Your task to perform on an android device: Go to Wikipedia Image 0: 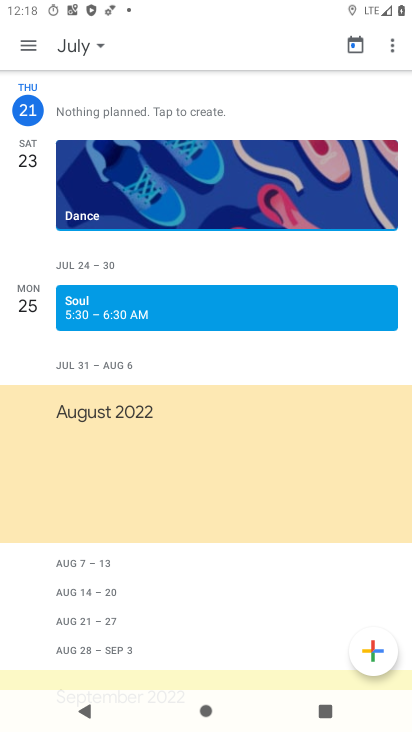
Step 0: press home button
Your task to perform on an android device: Go to Wikipedia Image 1: 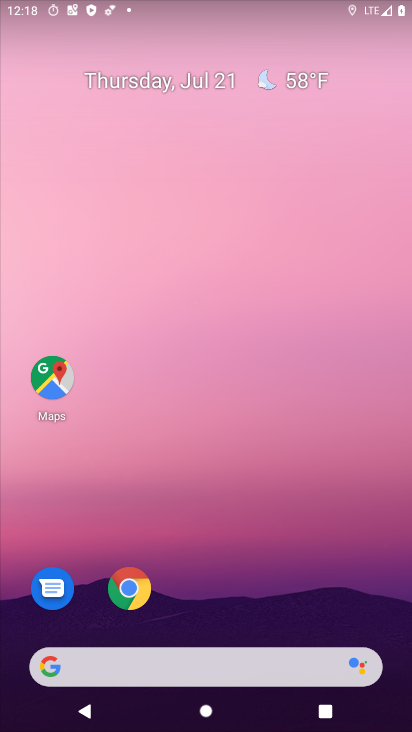
Step 1: click (134, 581)
Your task to perform on an android device: Go to Wikipedia Image 2: 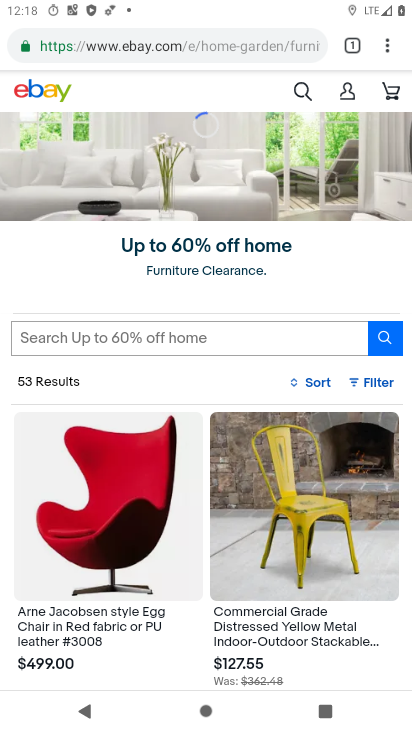
Step 2: click (144, 44)
Your task to perform on an android device: Go to Wikipedia Image 3: 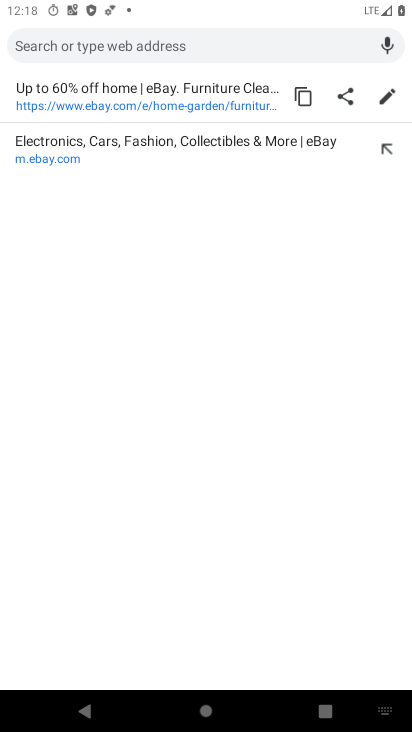
Step 3: type "wikipedia"
Your task to perform on an android device: Go to Wikipedia Image 4: 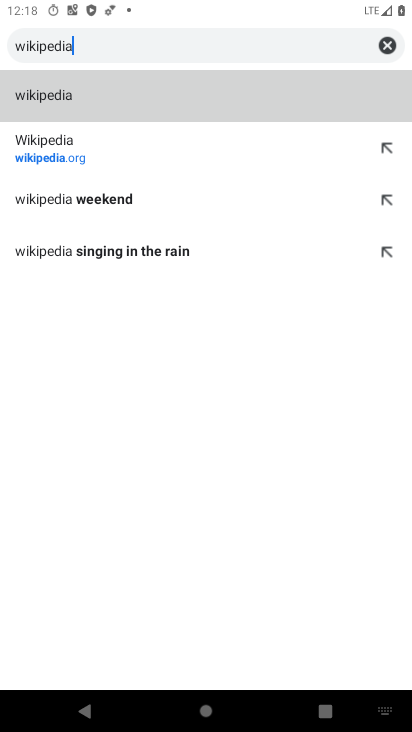
Step 4: click (73, 90)
Your task to perform on an android device: Go to Wikipedia Image 5: 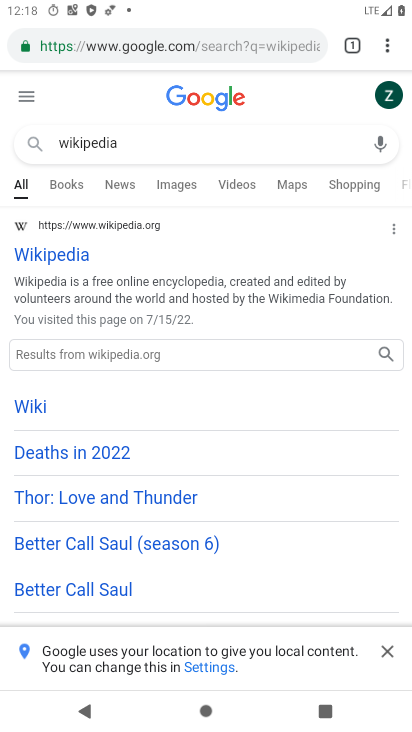
Step 5: click (40, 255)
Your task to perform on an android device: Go to Wikipedia Image 6: 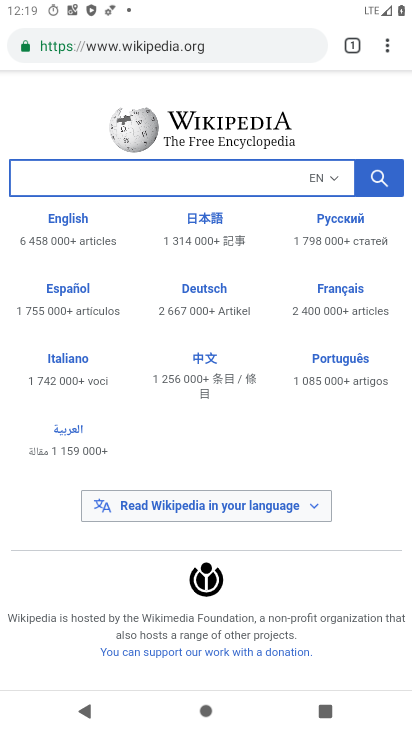
Step 6: task complete